Your task to perform on an android device: What's the news in Thailand? Image 0: 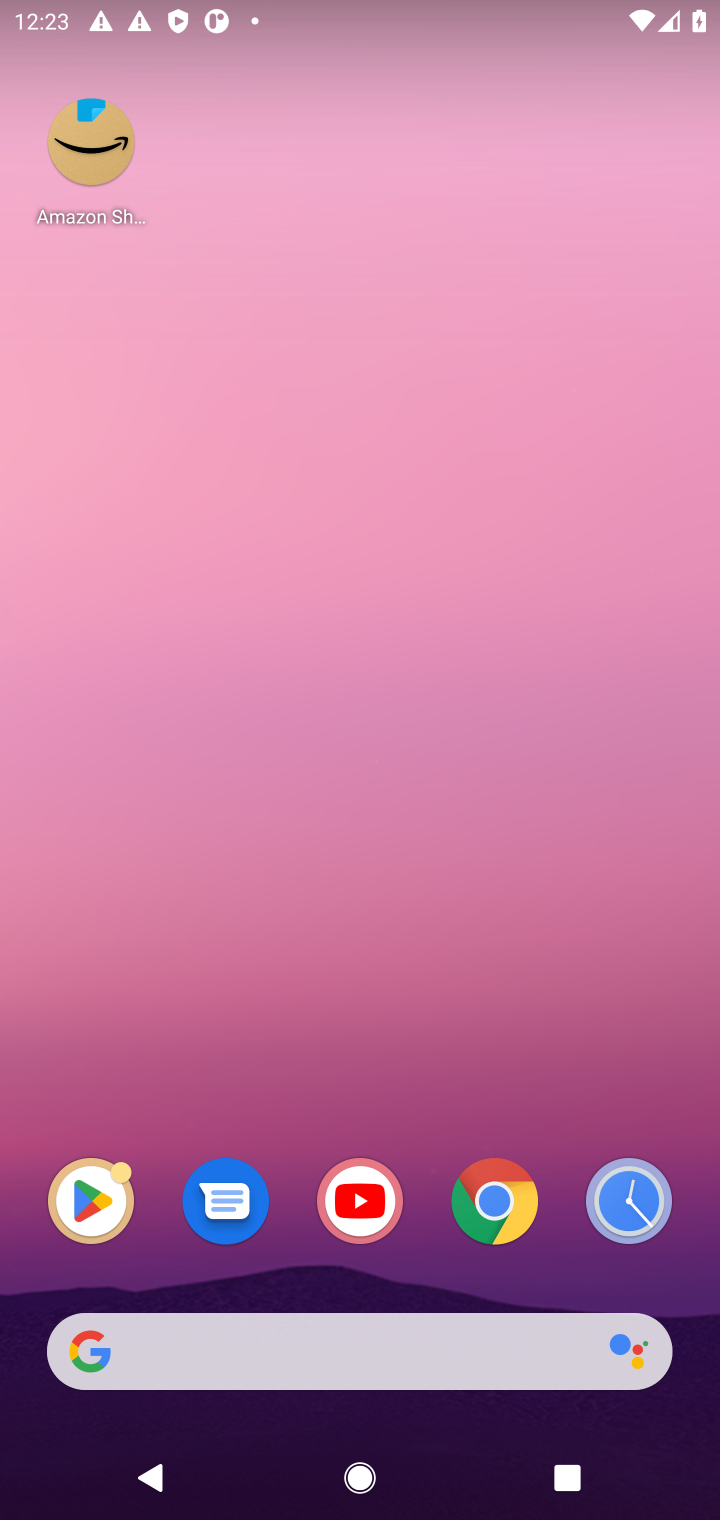
Step 0: click (505, 1199)
Your task to perform on an android device: What's the news in Thailand? Image 1: 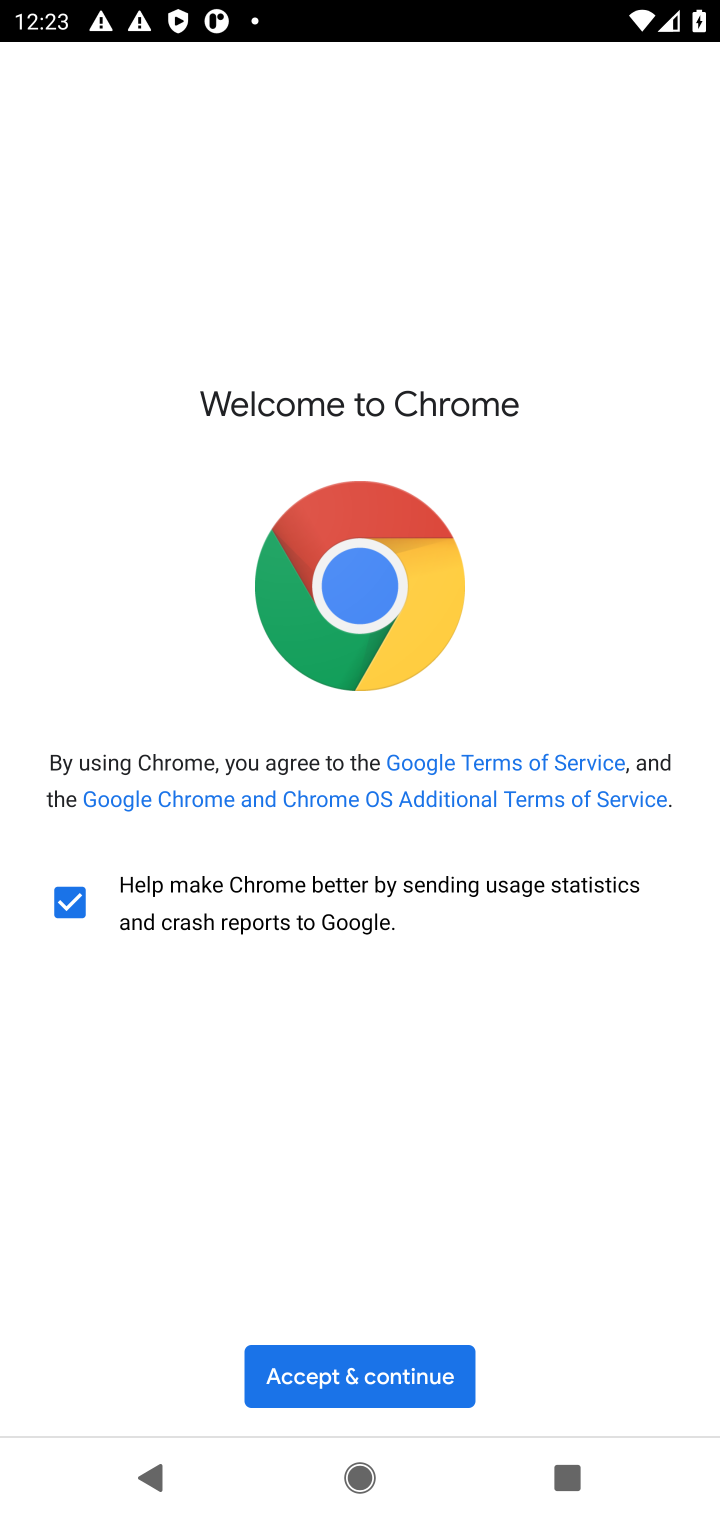
Step 1: click (371, 1371)
Your task to perform on an android device: What's the news in Thailand? Image 2: 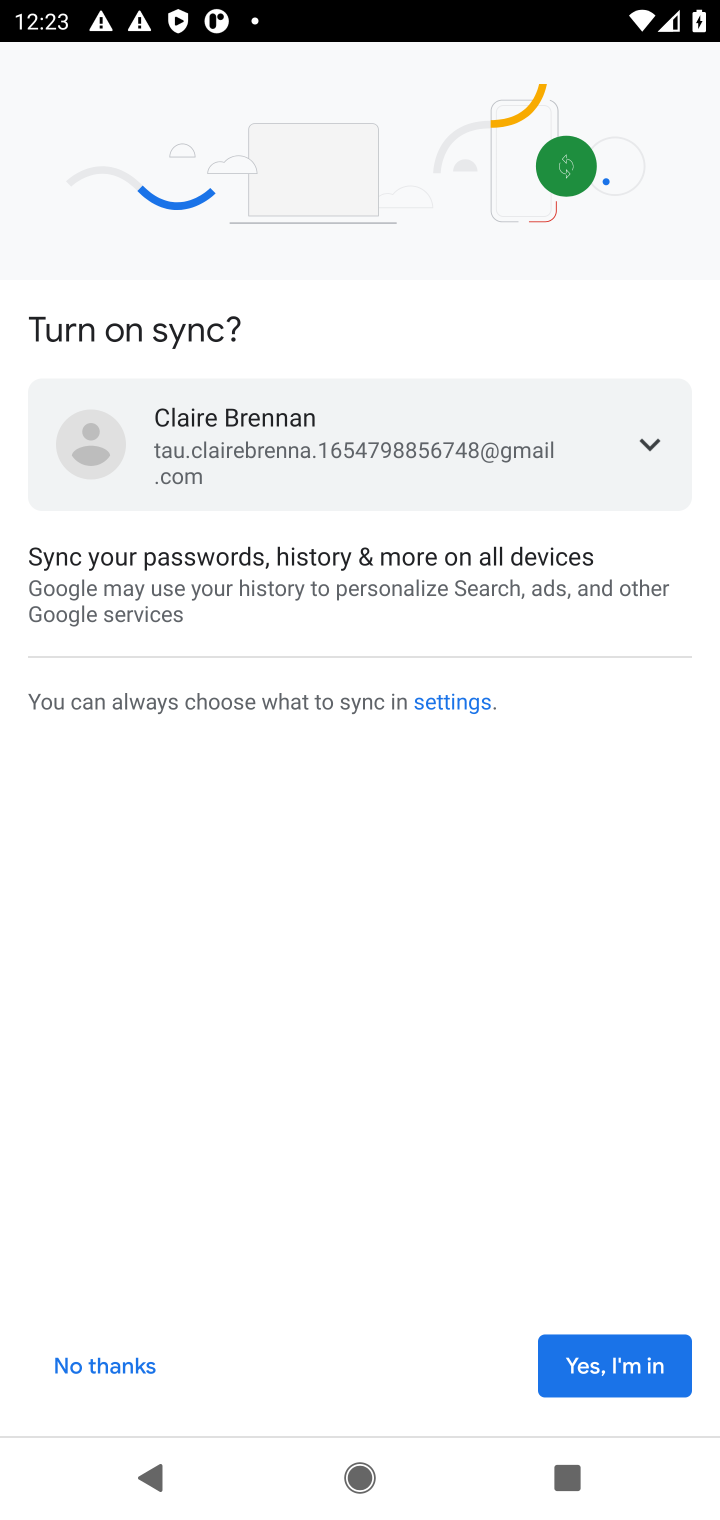
Step 2: click (631, 1376)
Your task to perform on an android device: What's the news in Thailand? Image 3: 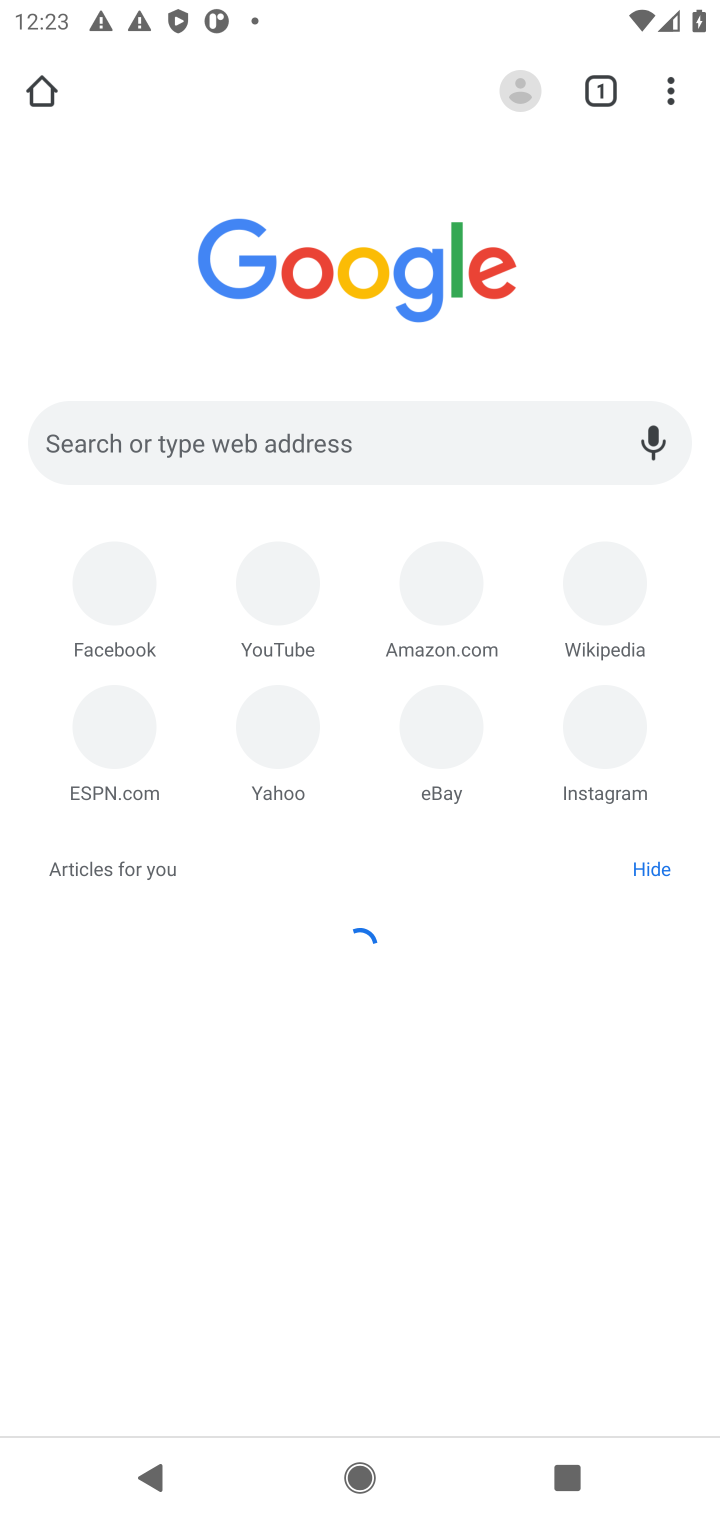
Step 3: click (443, 425)
Your task to perform on an android device: What's the news in Thailand? Image 4: 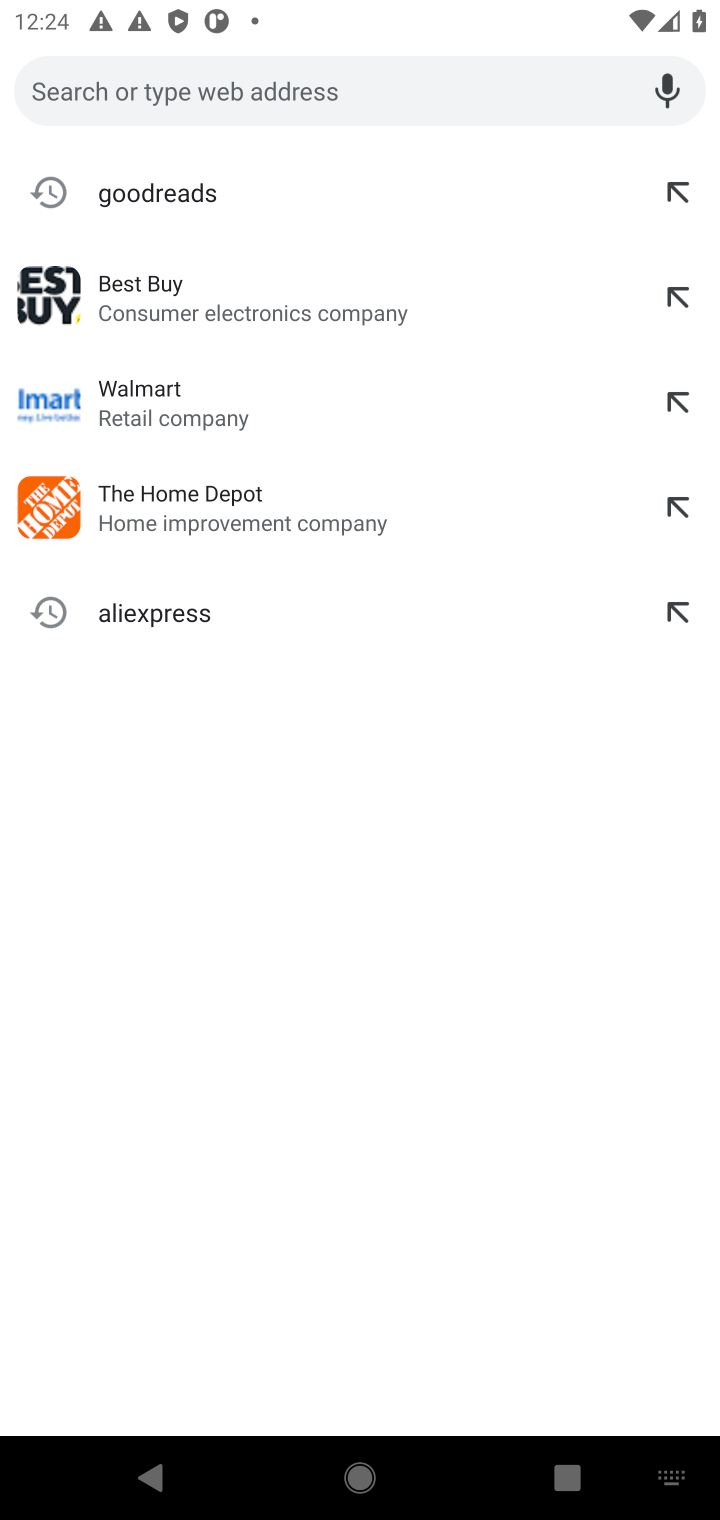
Step 4: type "What's the news in Thailand?"
Your task to perform on an android device: What's the news in Thailand? Image 5: 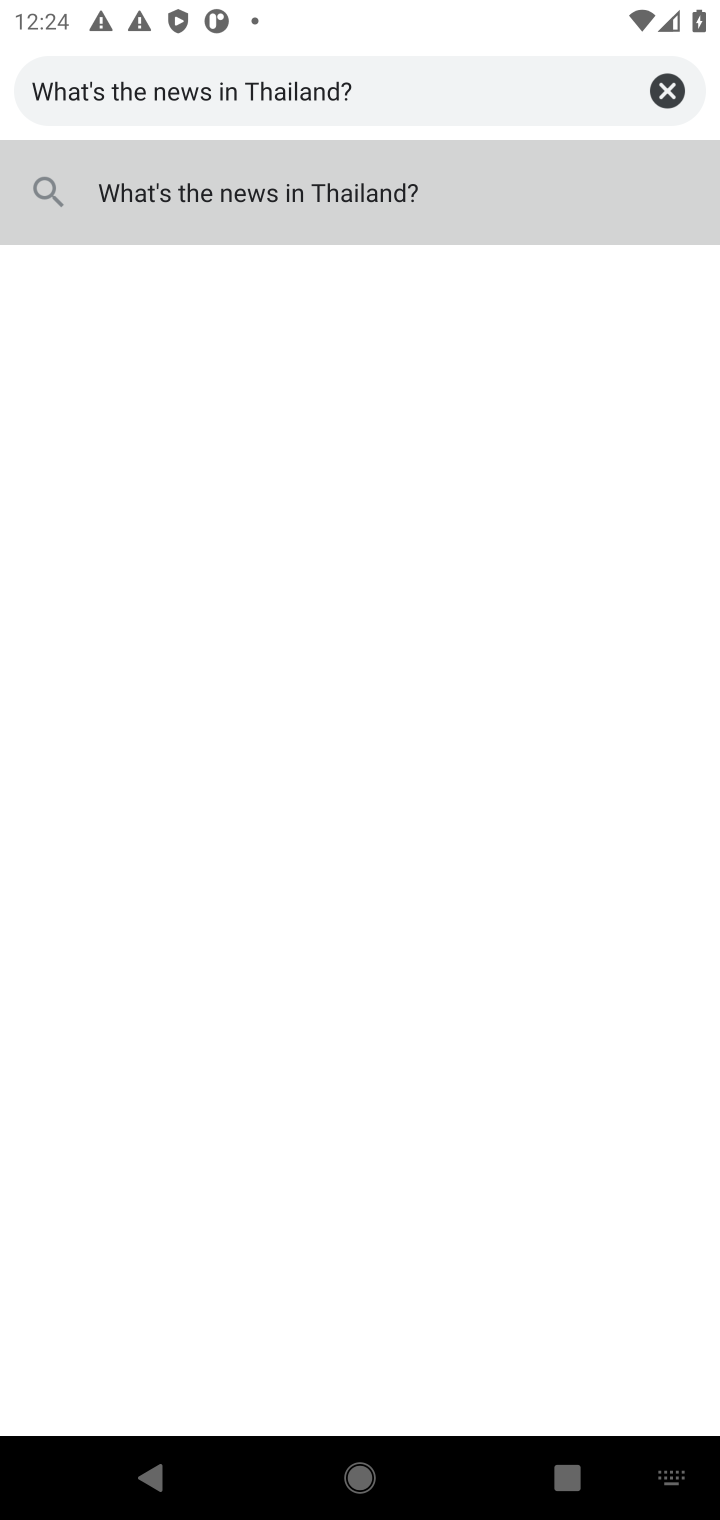
Step 5: click (564, 189)
Your task to perform on an android device: What's the news in Thailand? Image 6: 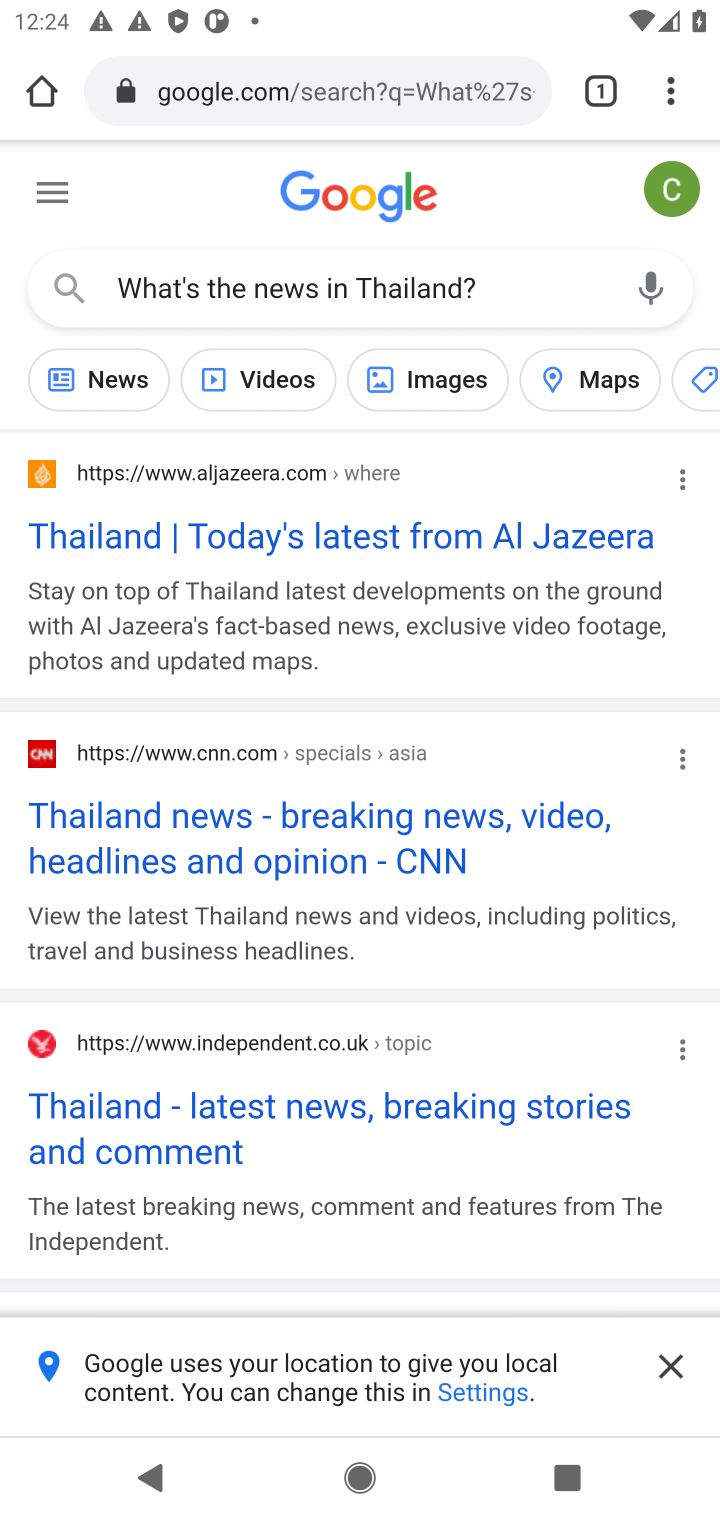
Step 6: click (438, 549)
Your task to perform on an android device: What's the news in Thailand? Image 7: 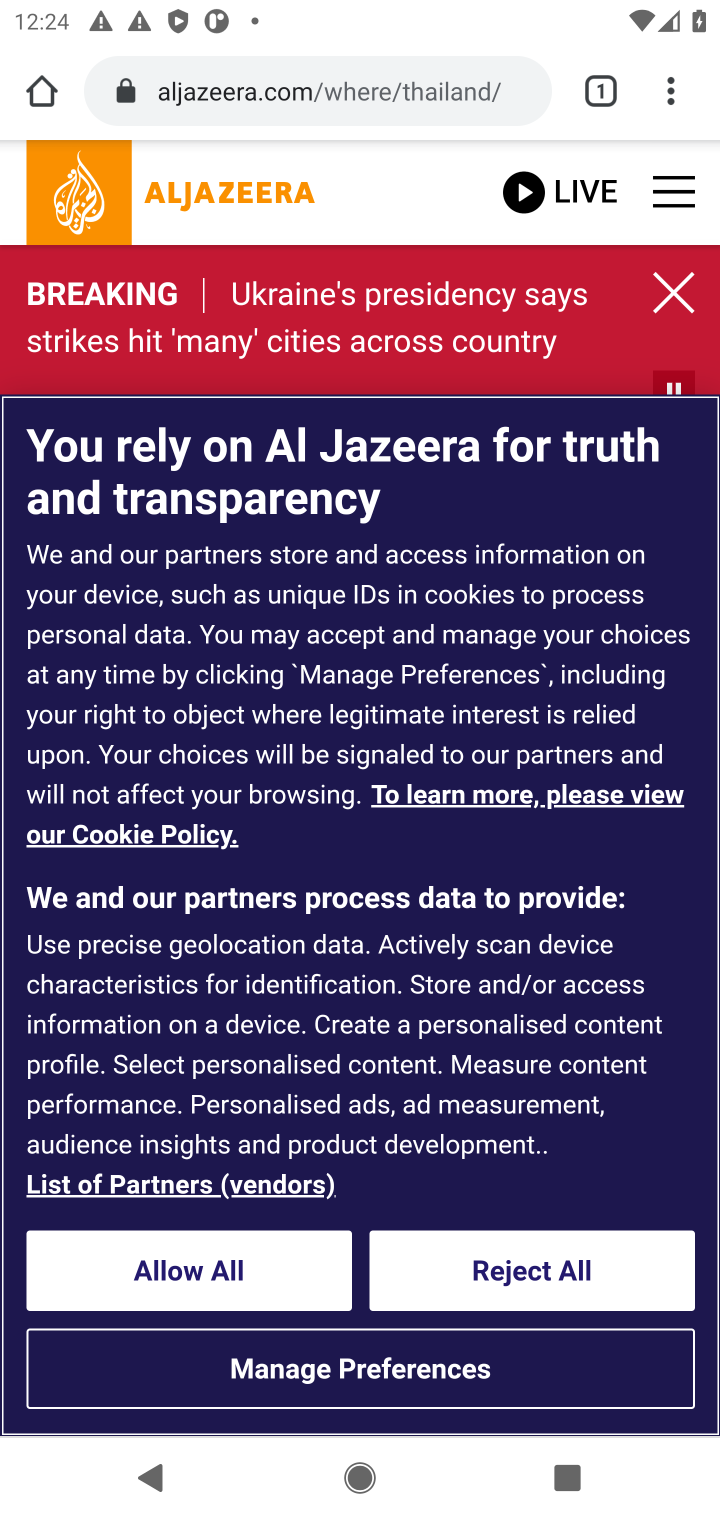
Step 7: task complete